Your task to perform on an android device: Open Amazon Image 0: 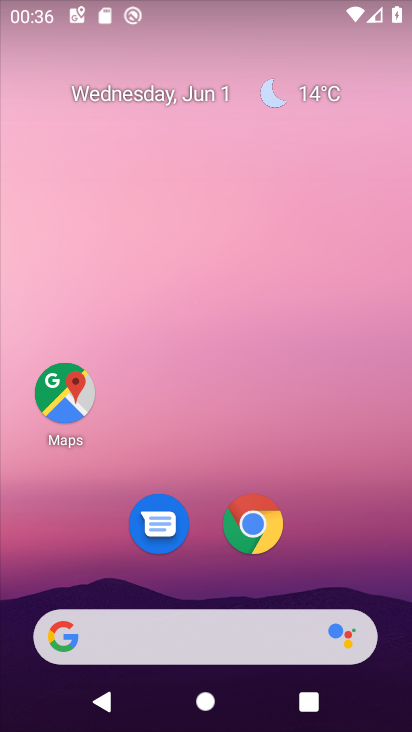
Step 0: click (228, 512)
Your task to perform on an android device: Open Amazon Image 1: 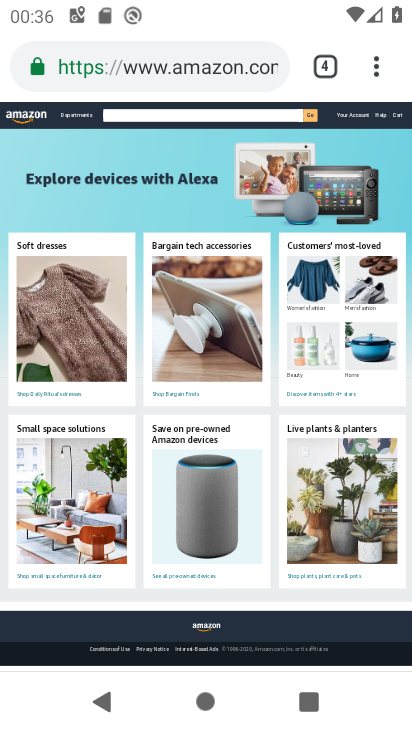
Step 1: task complete